Your task to perform on an android device: Go to Google maps Image 0: 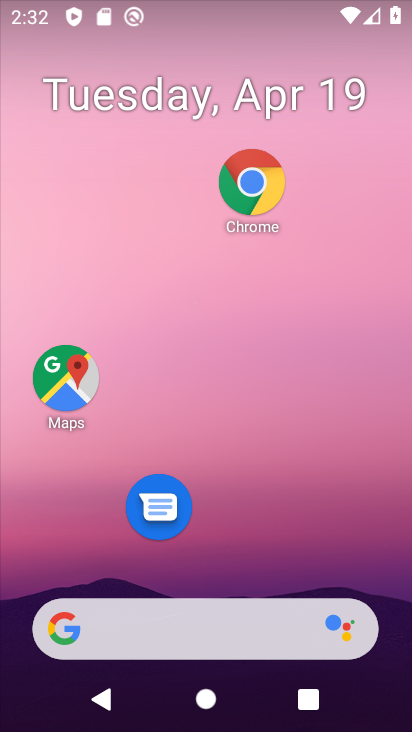
Step 0: drag from (227, 644) to (260, 71)
Your task to perform on an android device: Go to Google maps Image 1: 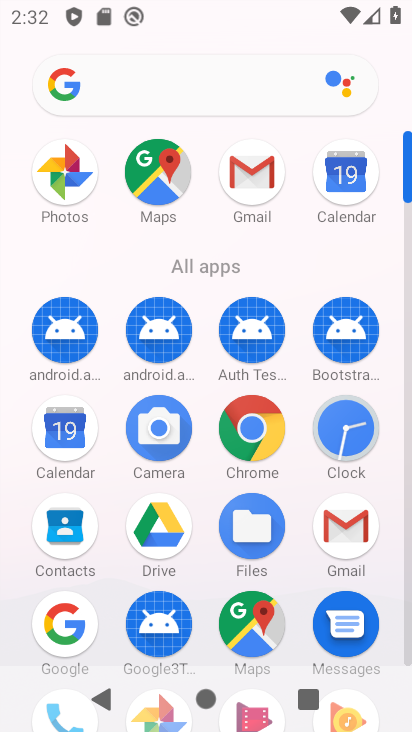
Step 1: click (256, 611)
Your task to perform on an android device: Go to Google maps Image 2: 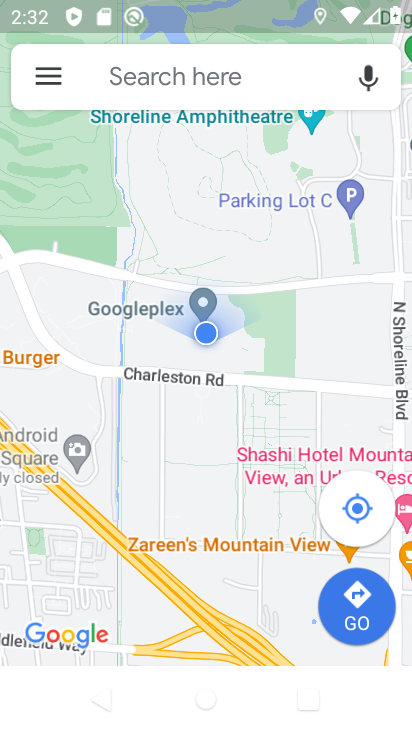
Step 2: task complete